Your task to perform on an android device: What's the news this week? Image 0: 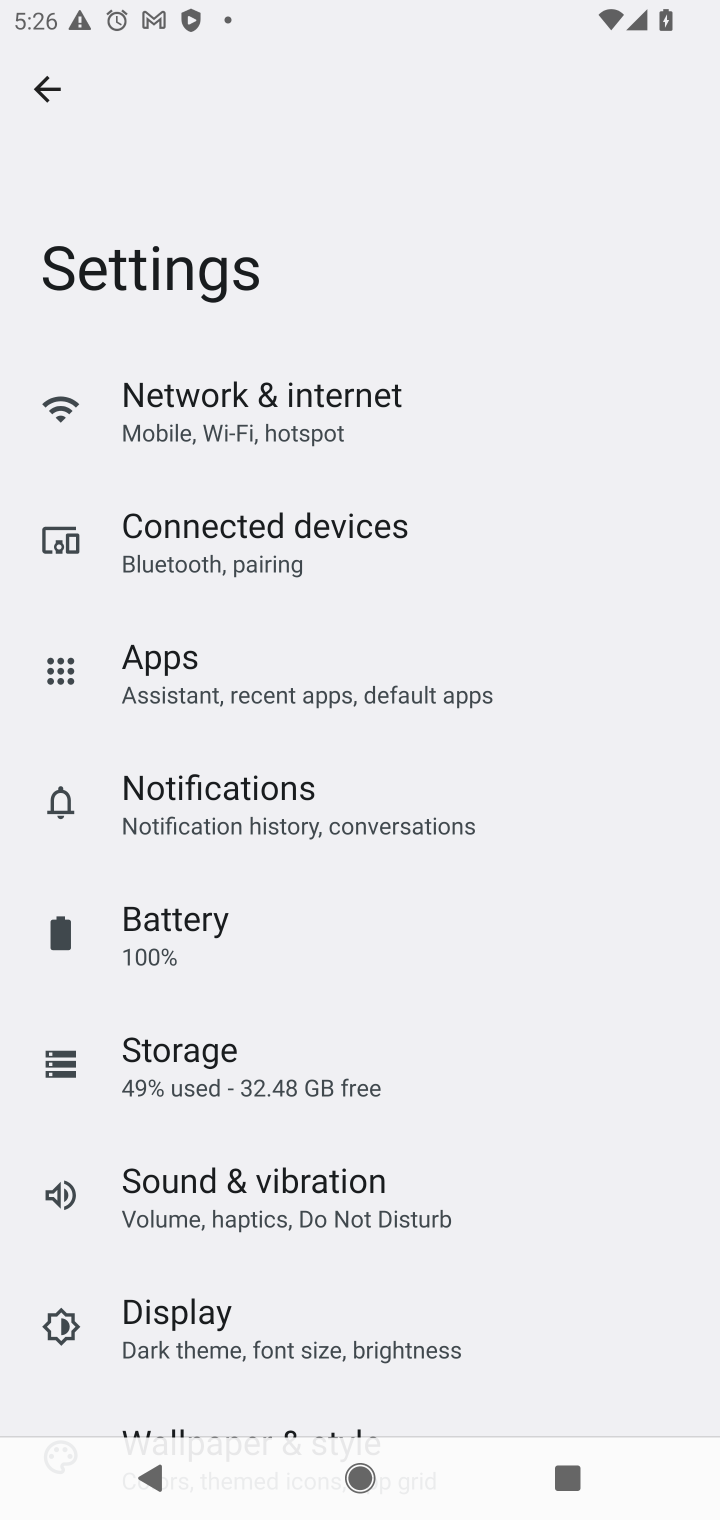
Step 0: press home button
Your task to perform on an android device: What's the news this week? Image 1: 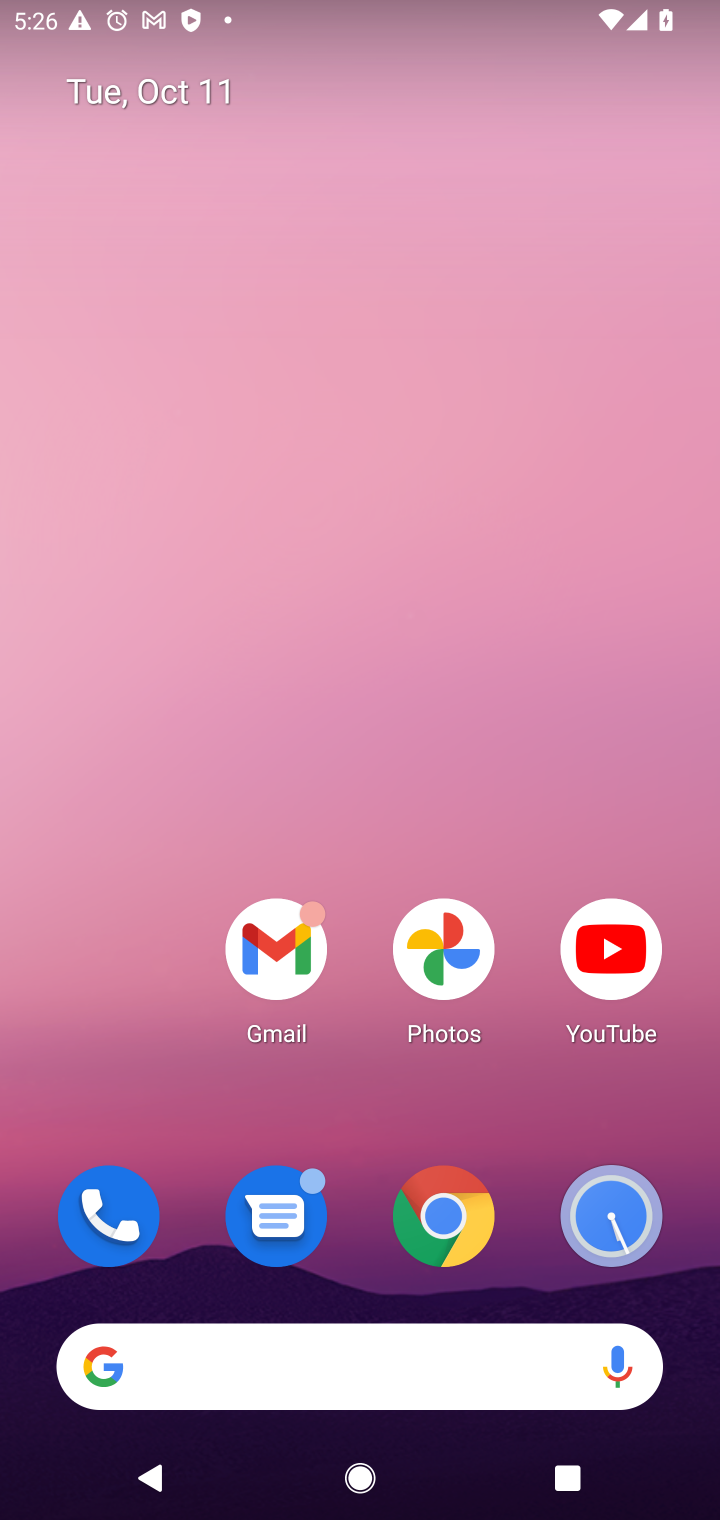
Step 1: click (453, 1242)
Your task to perform on an android device: What's the news this week? Image 2: 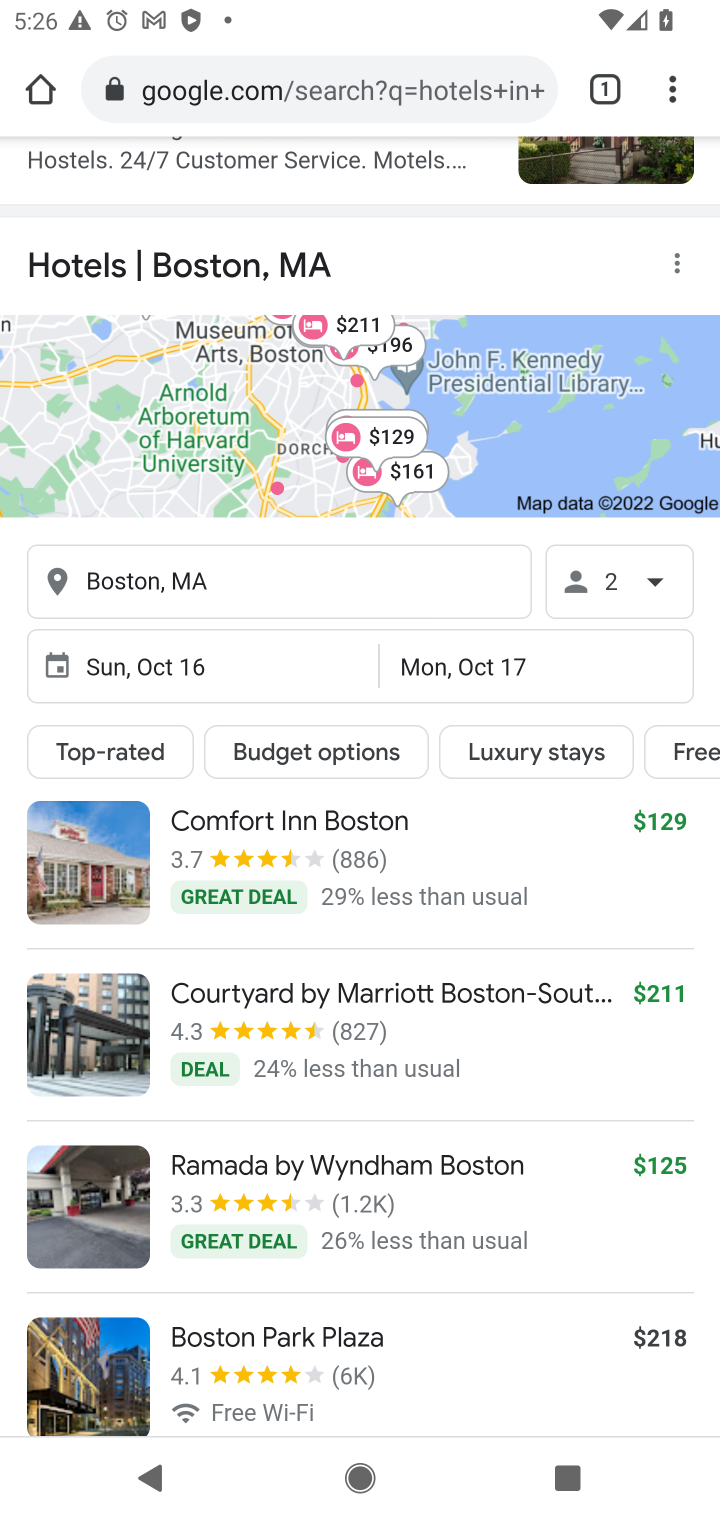
Step 2: click (350, 105)
Your task to perform on an android device: What's the news this week? Image 3: 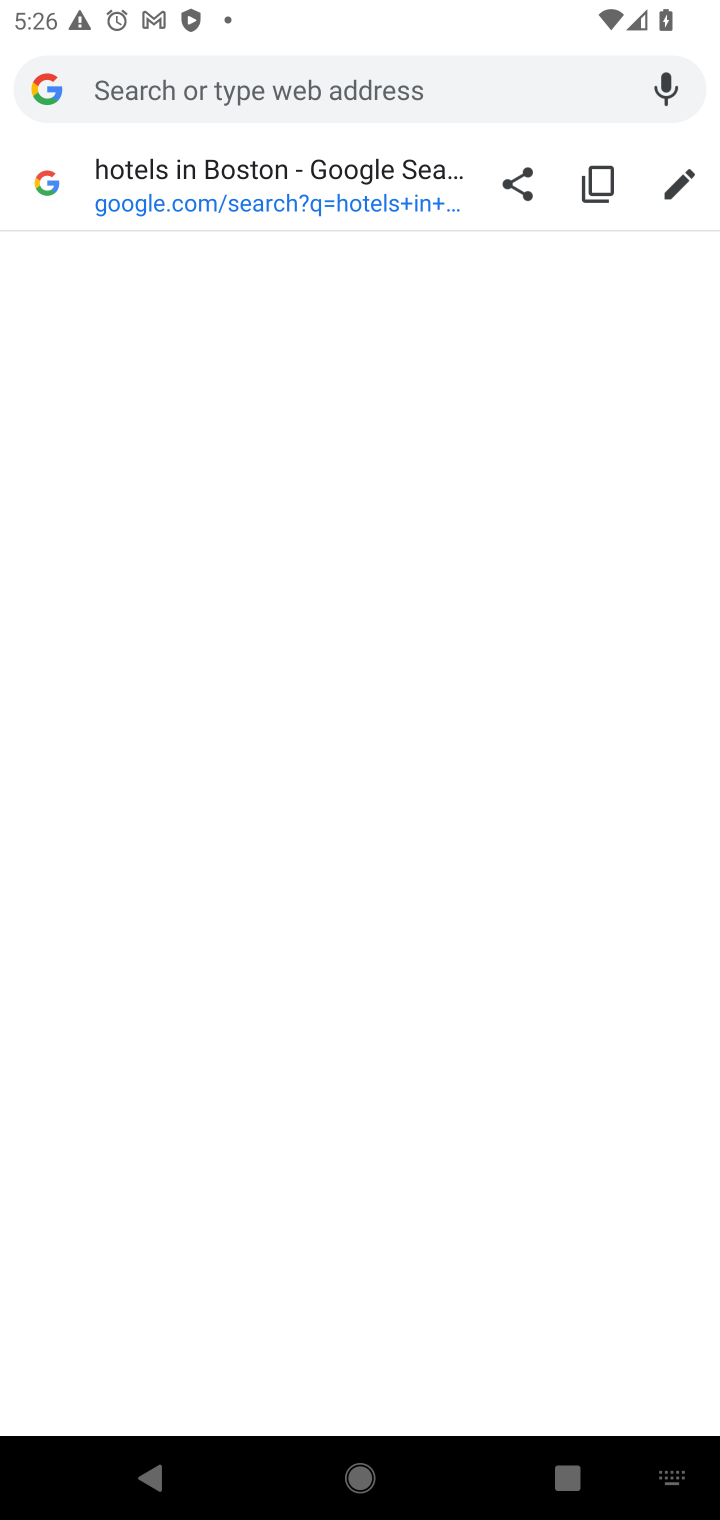
Step 3: type "news this week"
Your task to perform on an android device: What's the news this week? Image 4: 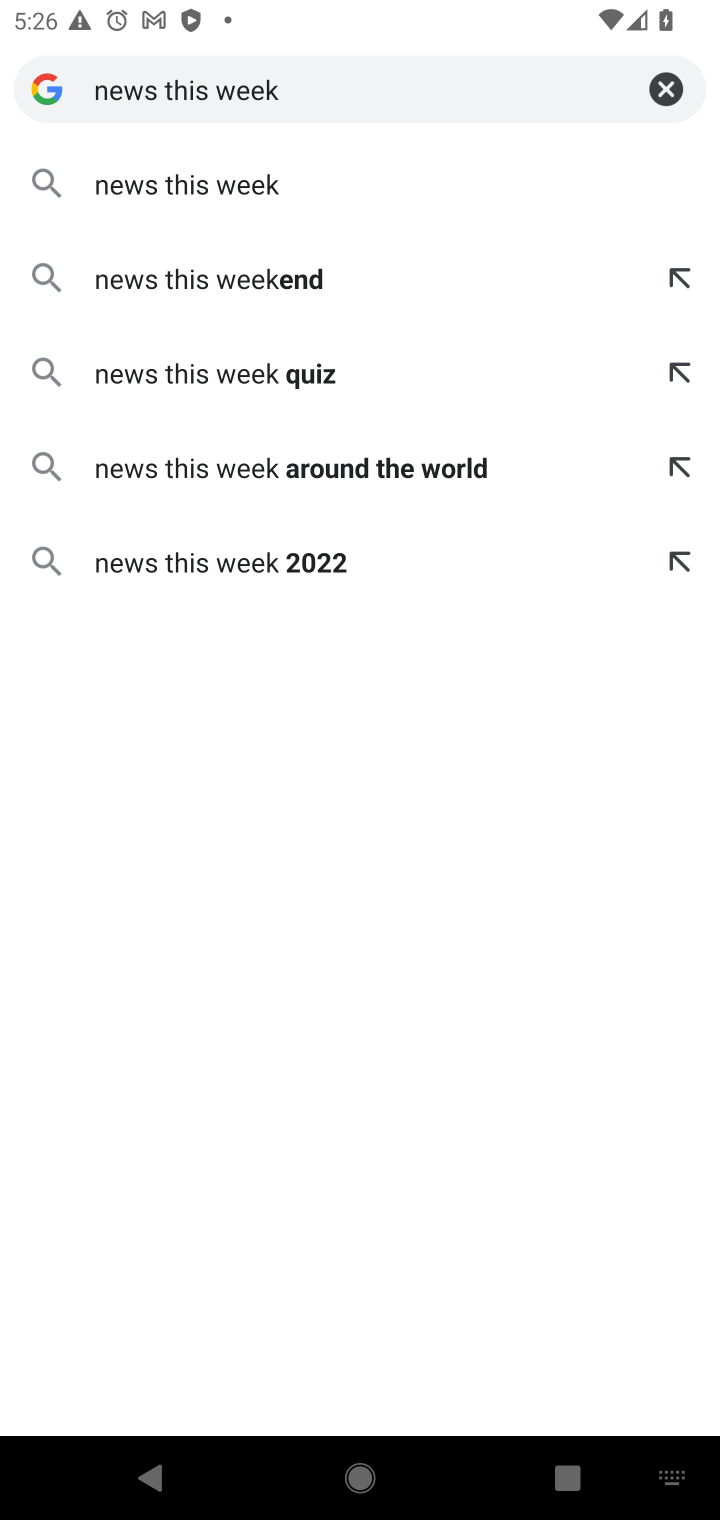
Step 4: press enter
Your task to perform on an android device: What's the news this week? Image 5: 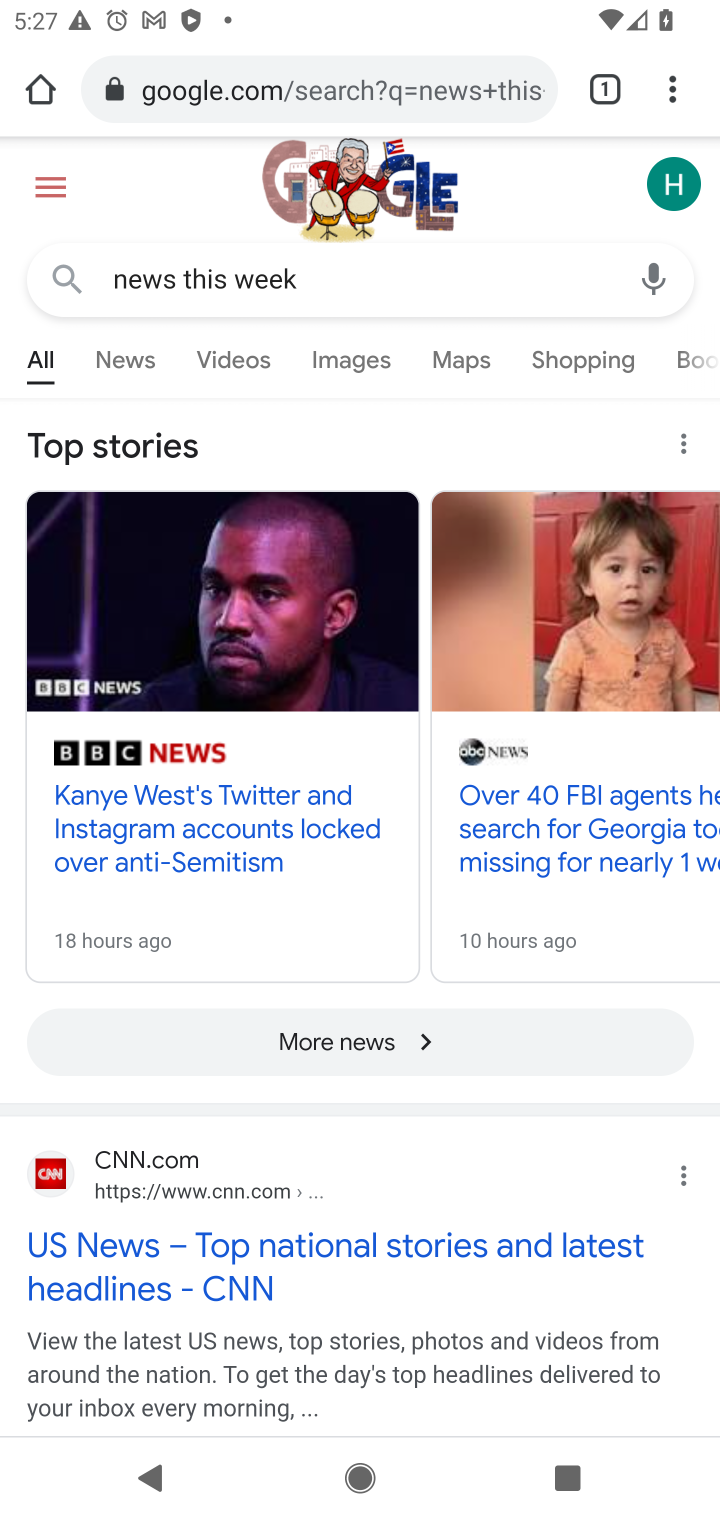
Step 5: click (122, 374)
Your task to perform on an android device: What's the news this week? Image 6: 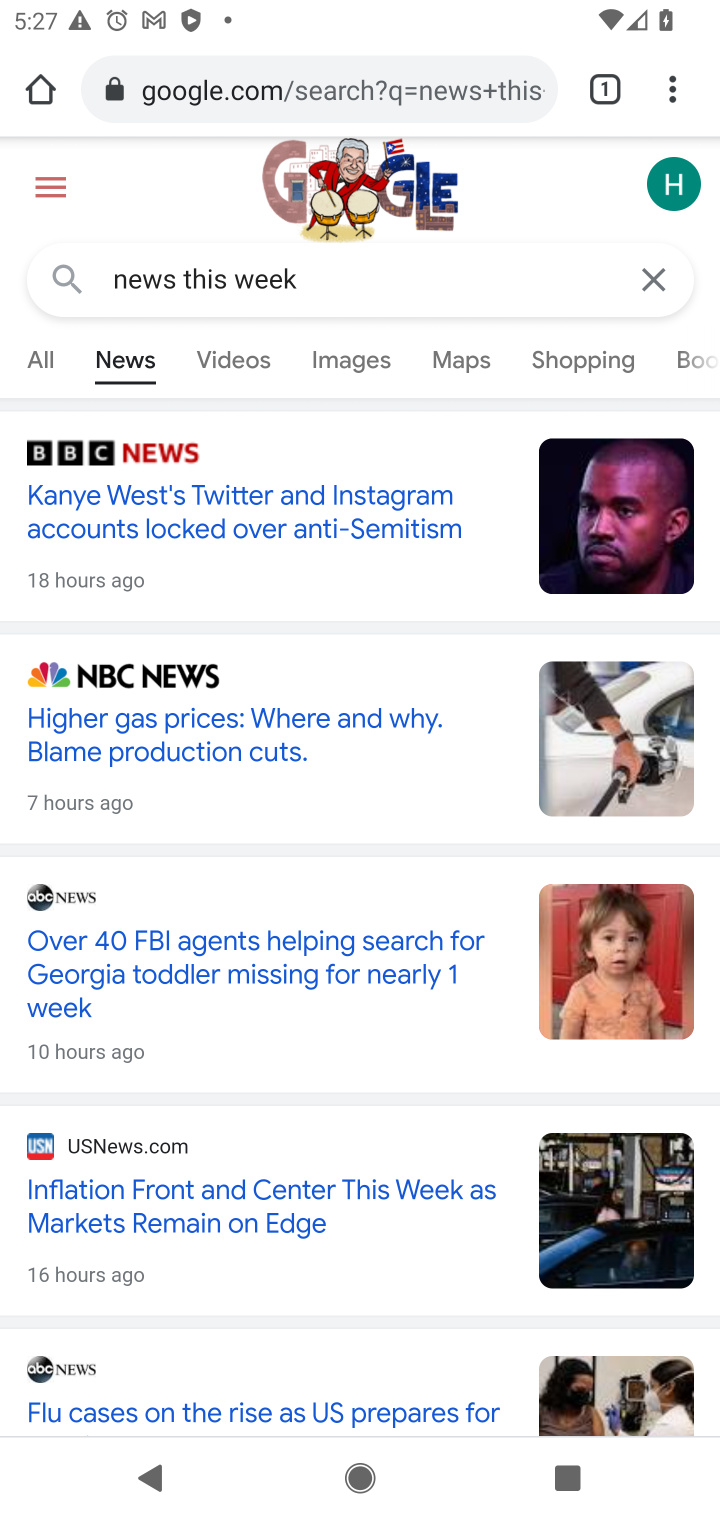
Step 6: task complete